Your task to perform on an android device: Check the news Image 0: 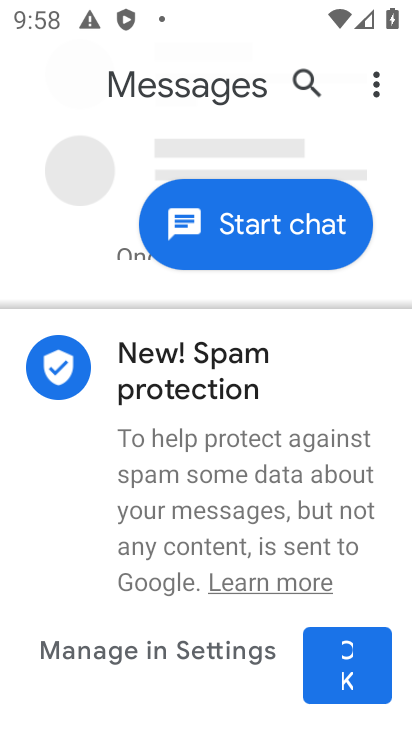
Step 0: press home button
Your task to perform on an android device: Check the news Image 1: 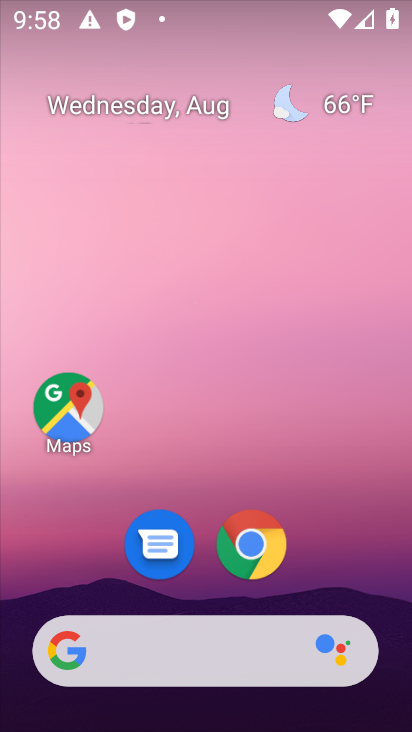
Step 1: task complete